Your task to perform on an android device: empty trash in the gmail app Image 0: 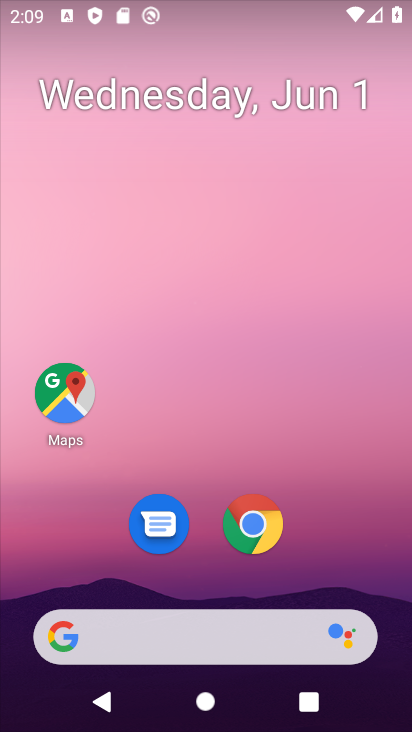
Step 0: drag from (266, 445) to (229, 2)
Your task to perform on an android device: empty trash in the gmail app Image 1: 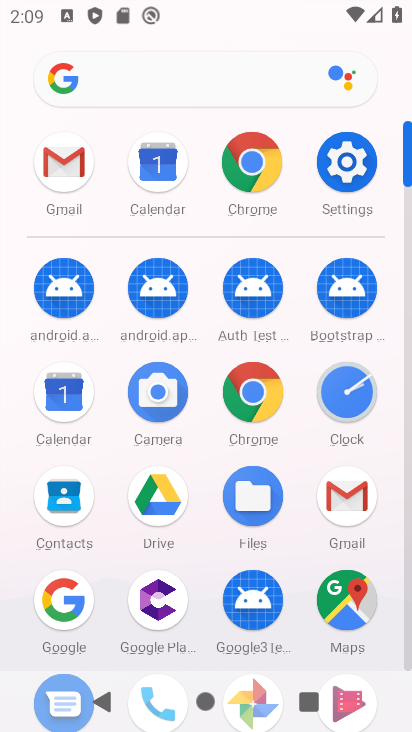
Step 1: click (70, 173)
Your task to perform on an android device: empty trash in the gmail app Image 2: 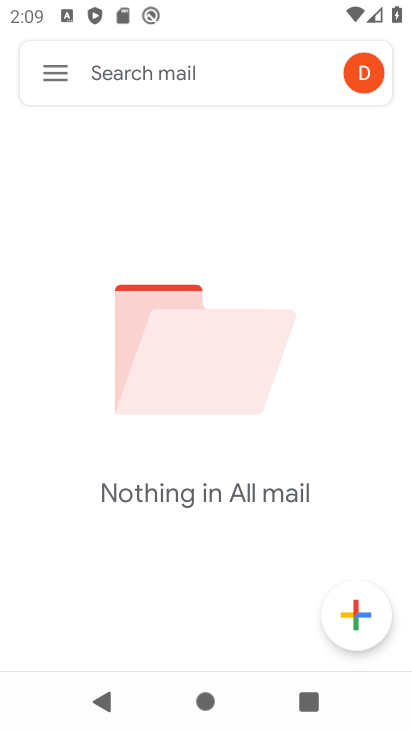
Step 2: click (56, 71)
Your task to perform on an android device: empty trash in the gmail app Image 3: 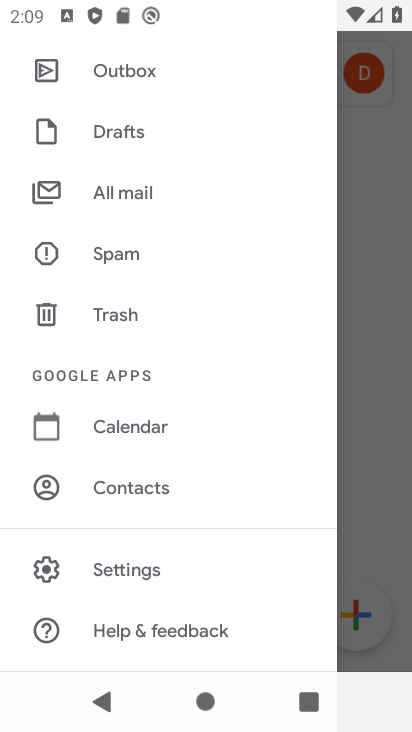
Step 3: click (126, 312)
Your task to perform on an android device: empty trash in the gmail app Image 4: 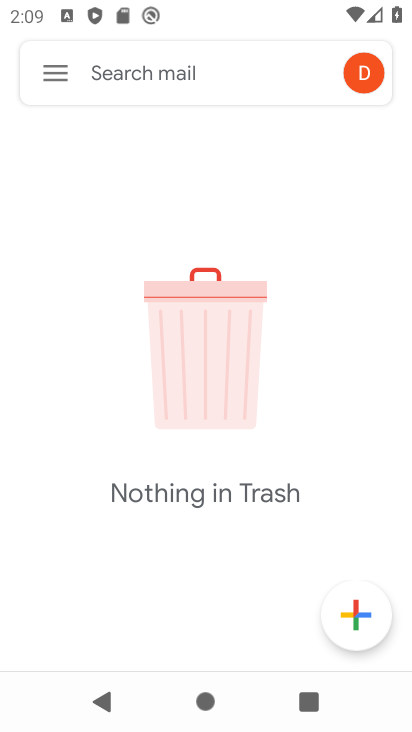
Step 4: task complete